Your task to perform on an android device: change notifications settings Image 0: 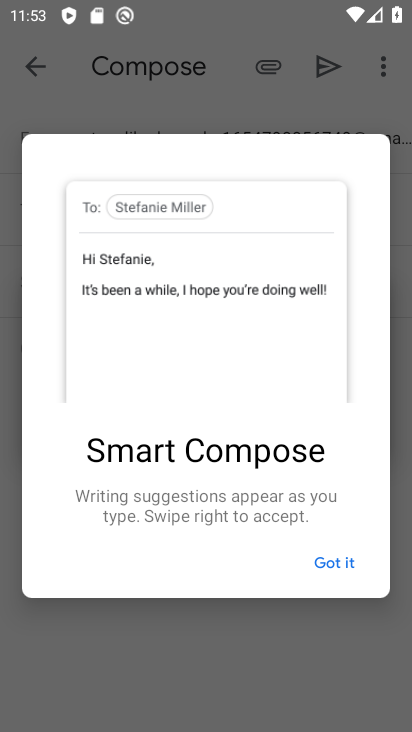
Step 0: press home button
Your task to perform on an android device: change notifications settings Image 1: 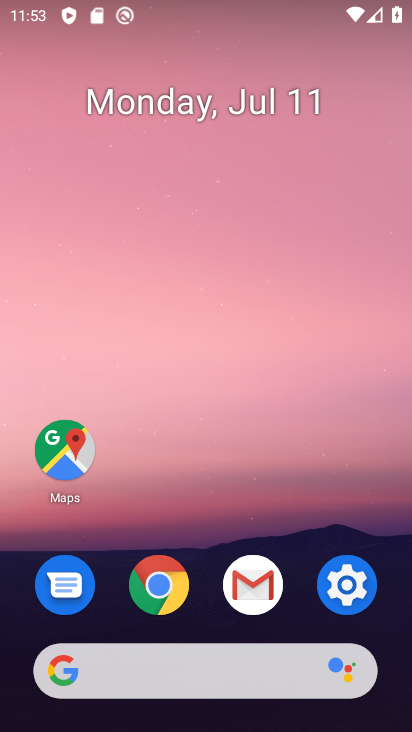
Step 1: drag from (231, 687) to (355, 99)
Your task to perform on an android device: change notifications settings Image 2: 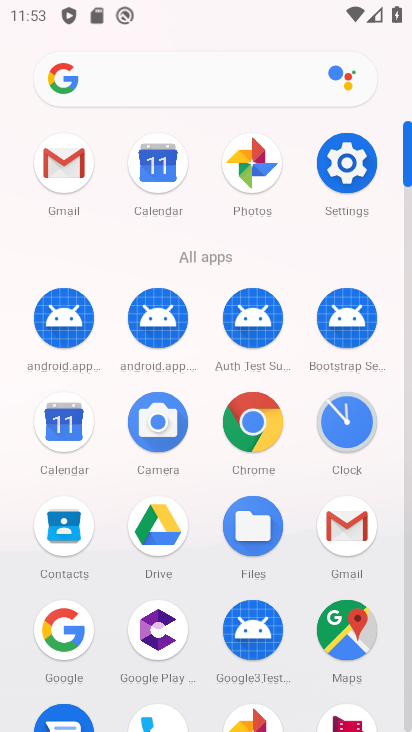
Step 2: click (345, 173)
Your task to perform on an android device: change notifications settings Image 3: 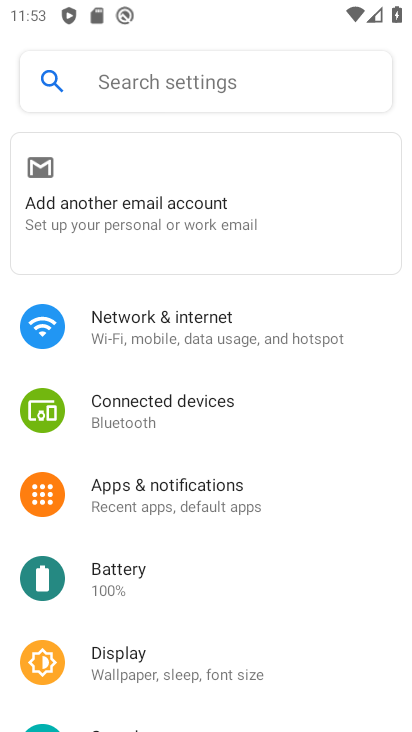
Step 3: click (197, 85)
Your task to perform on an android device: change notifications settings Image 4: 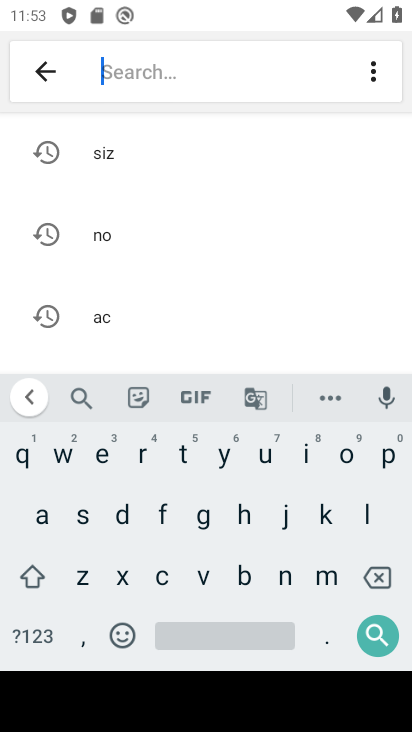
Step 4: click (275, 589)
Your task to perform on an android device: change notifications settings Image 5: 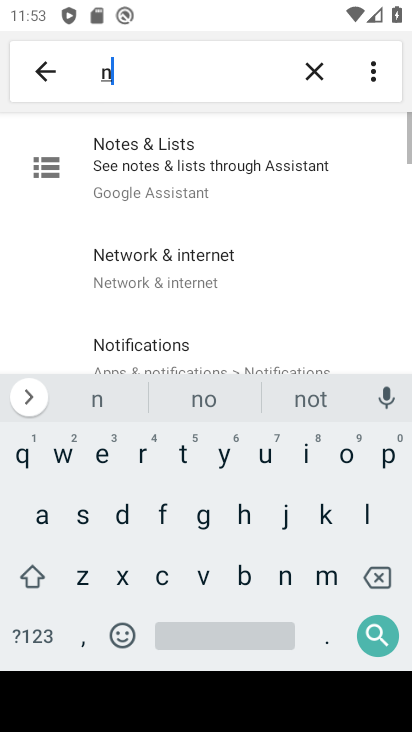
Step 5: click (345, 456)
Your task to perform on an android device: change notifications settings Image 6: 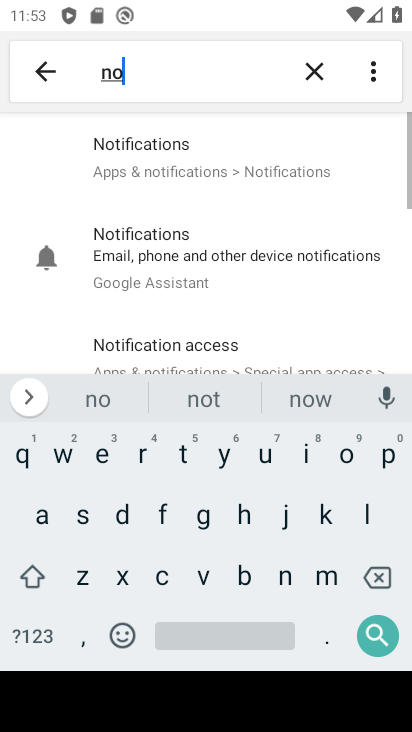
Step 6: click (169, 168)
Your task to perform on an android device: change notifications settings Image 7: 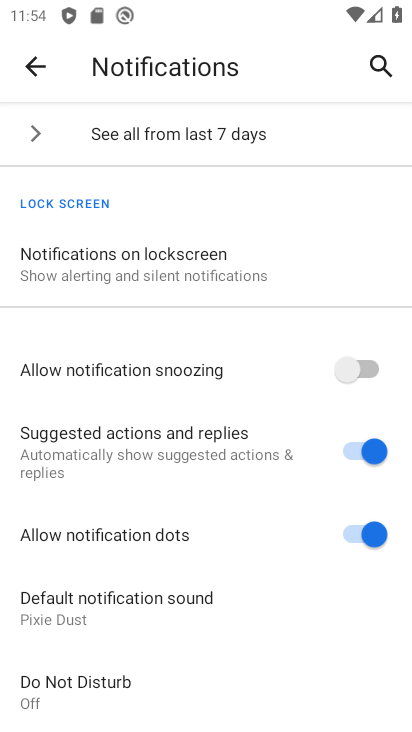
Step 7: click (149, 245)
Your task to perform on an android device: change notifications settings Image 8: 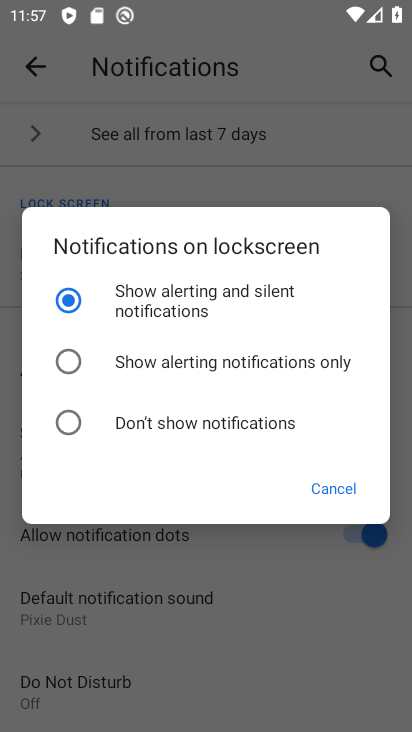
Step 8: task complete